Your task to perform on an android device: turn on priority inbox in the gmail app Image 0: 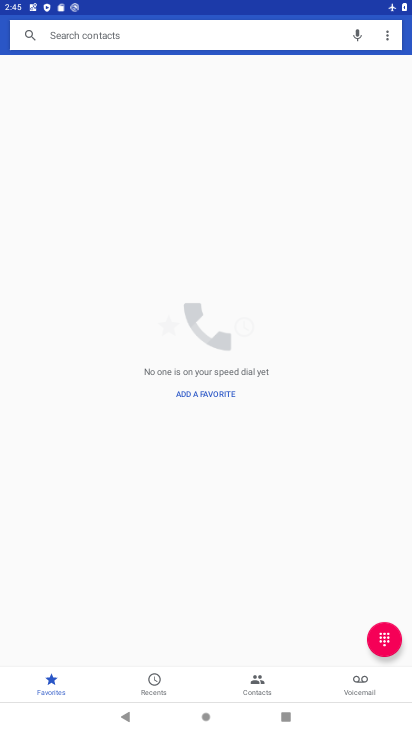
Step 0: press home button
Your task to perform on an android device: turn on priority inbox in the gmail app Image 1: 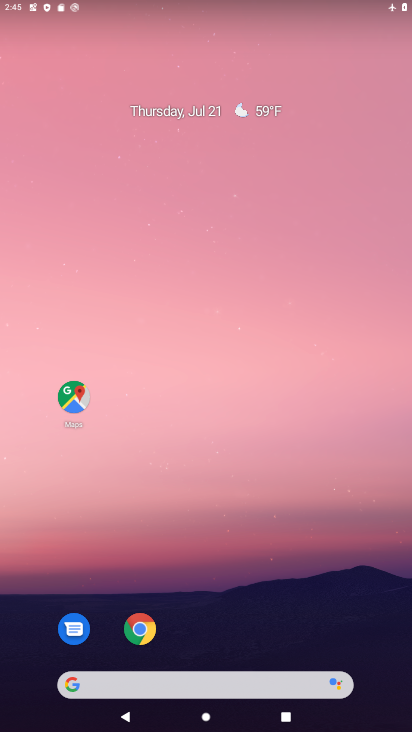
Step 1: drag from (222, 721) to (198, 247)
Your task to perform on an android device: turn on priority inbox in the gmail app Image 2: 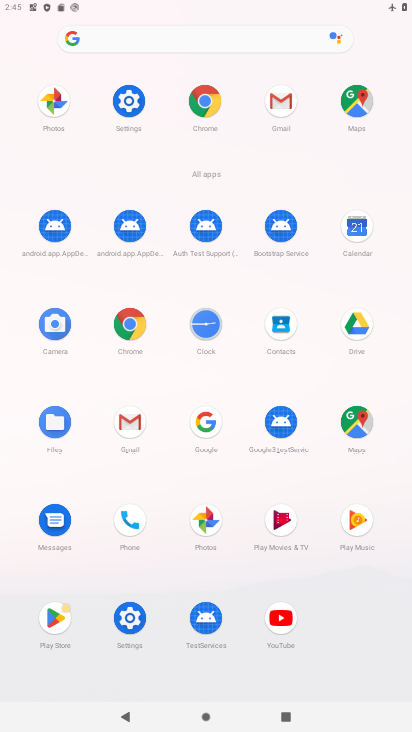
Step 2: click (129, 423)
Your task to perform on an android device: turn on priority inbox in the gmail app Image 3: 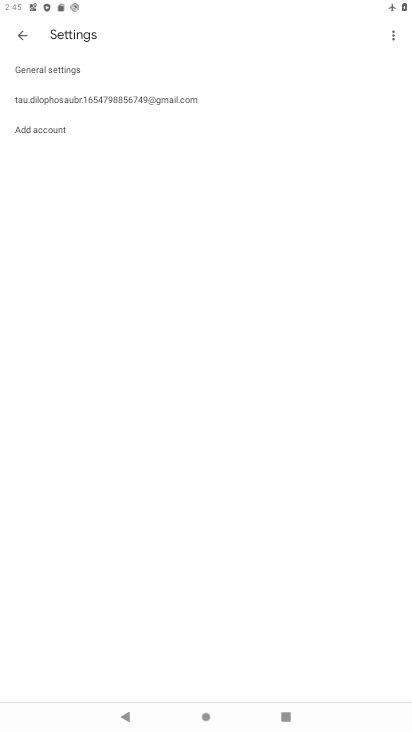
Step 3: click (50, 102)
Your task to perform on an android device: turn on priority inbox in the gmail app Image 4: 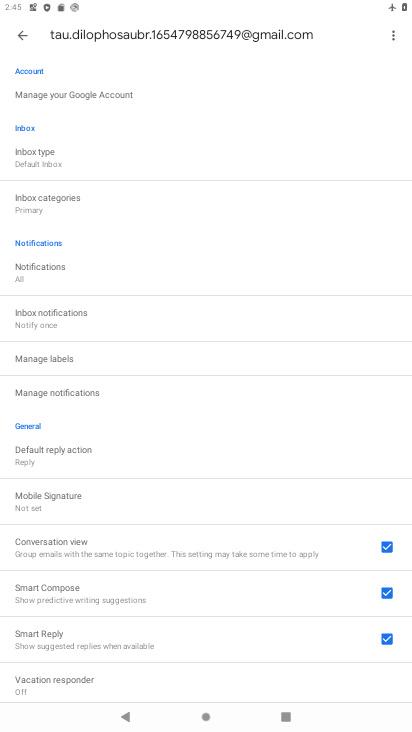
Step 4: click (32, 153)
Your task to perform on an android device: turn on priority inbox in the gmail app Image 5: 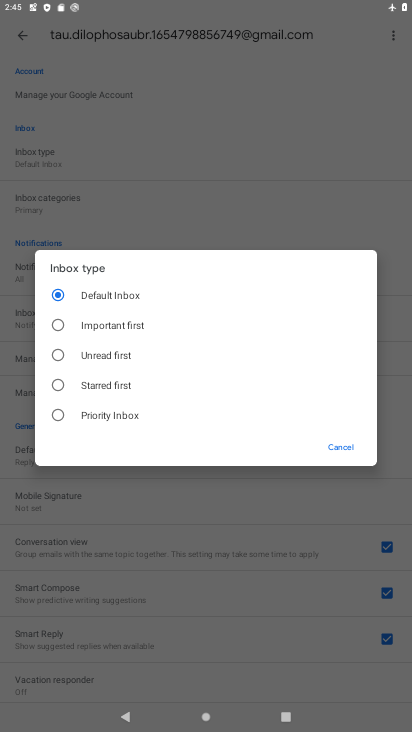
Step 5: click (58, 411)
Your task to perform on an android device: turn on priority inbox in the gmail app Image 6: 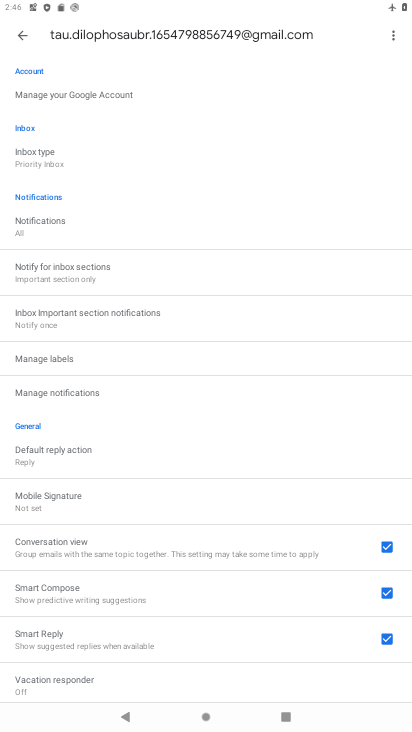
Step 6: task complete